Your task to perform on an android device: turn on location history Image 0: 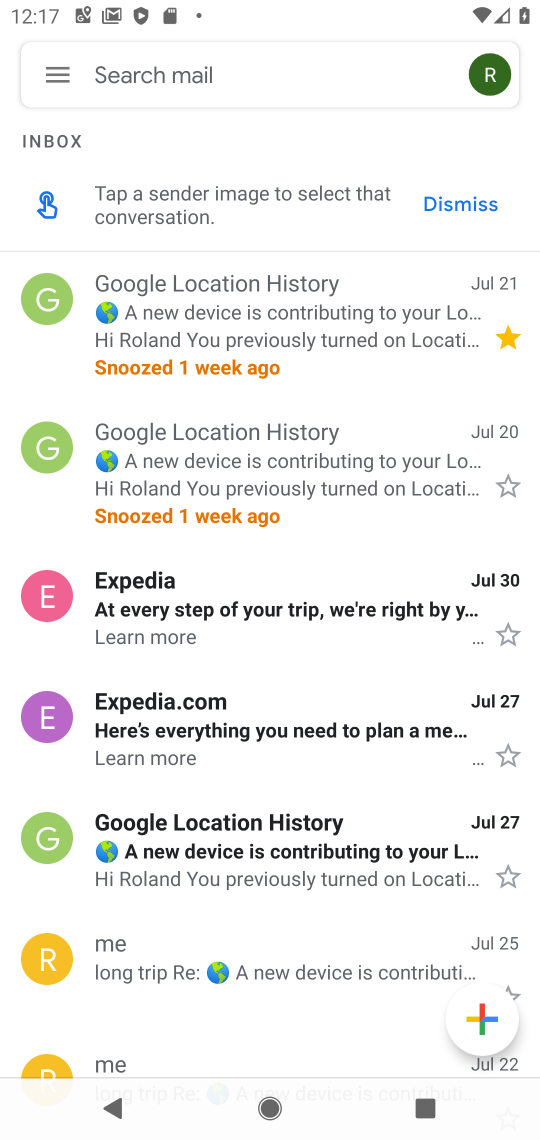
Step 0: press home button
Your task to perform on an android device: turn on location history Image 1: 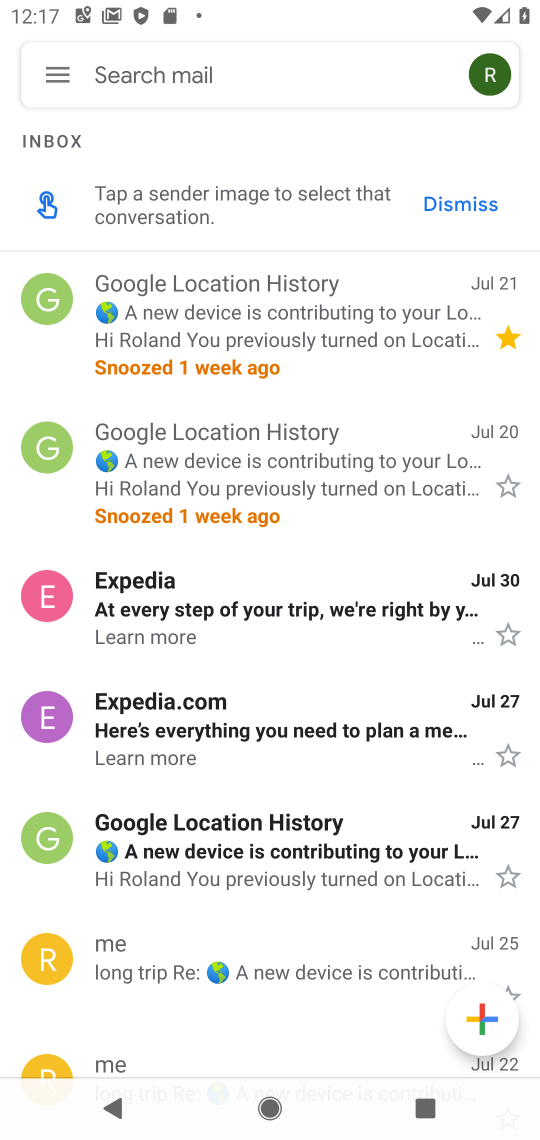
Step 1: press home button
Your task to perform on an android device: turn on location history Image 2: 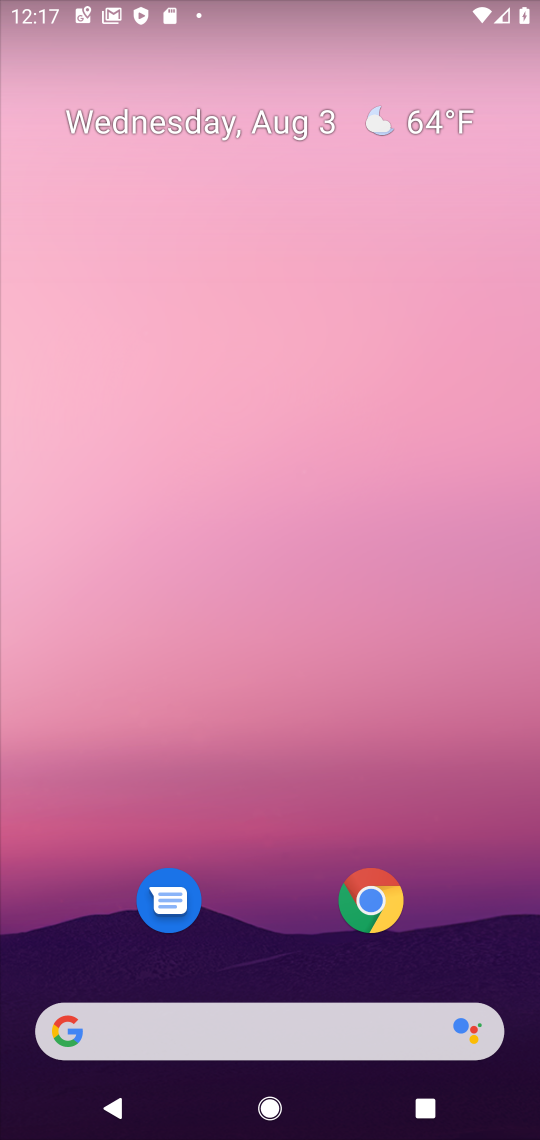
Step 2: drag from (272, 928) to (208, 51)
Your task to perform on an android device: turn on location history Image 3: 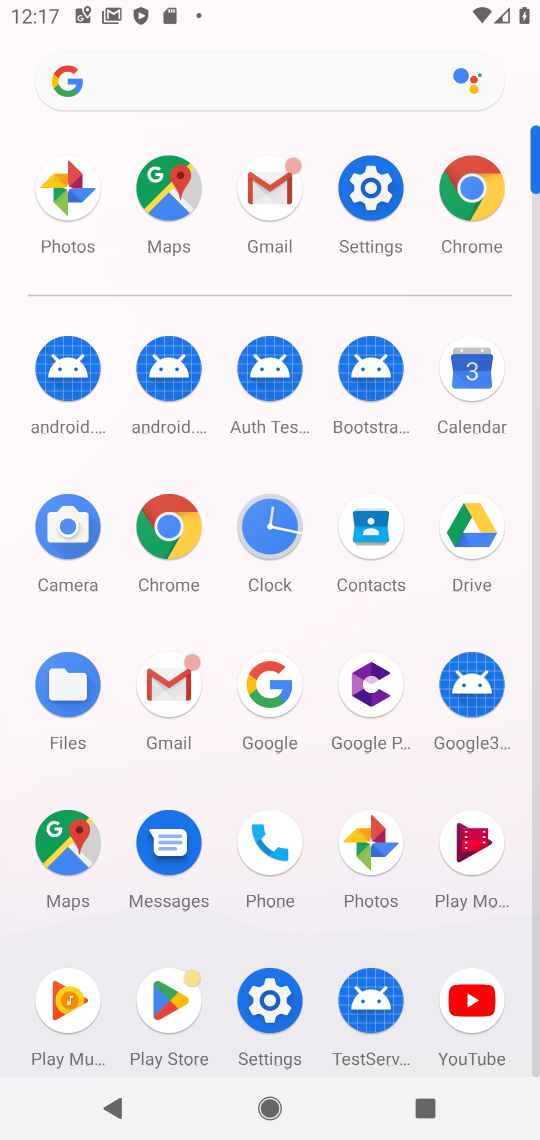
Step 3: click (360, 177)
Your task to perform on an android device: turn on location history Image 4: 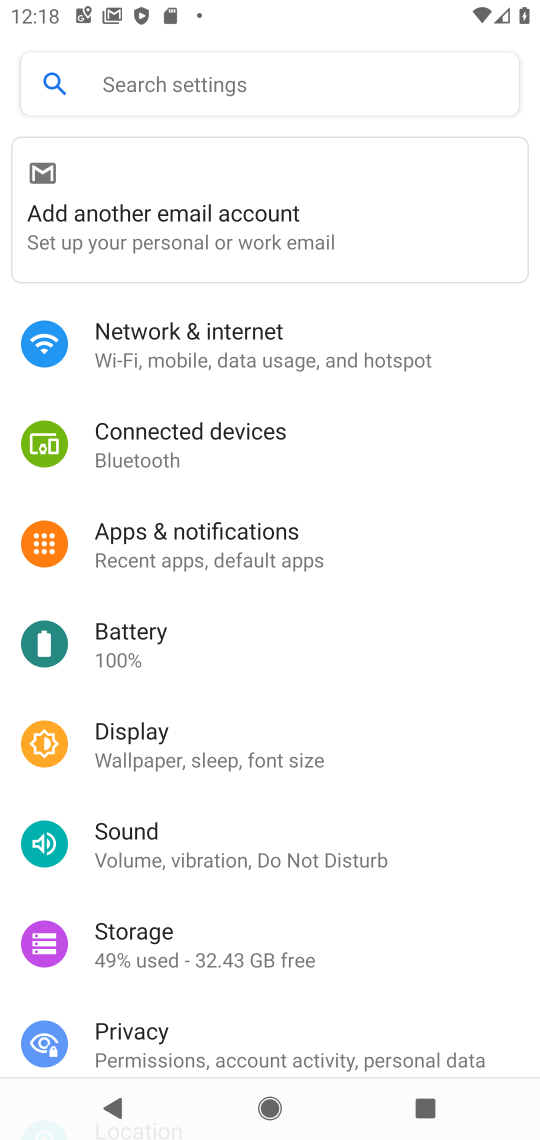
Step 4: drag from (275, 1006) to (281, 318)
Your task to perform on an android device: turn on location history Image 5: 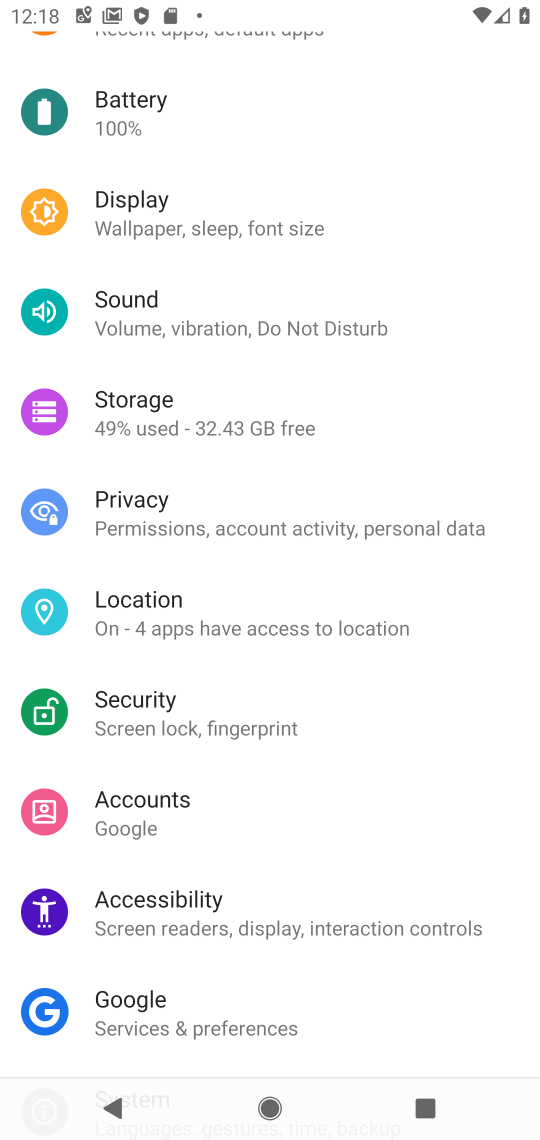
Step 5: click (169, 623)
Your task to perform on an android device: turn on location history Image 6: 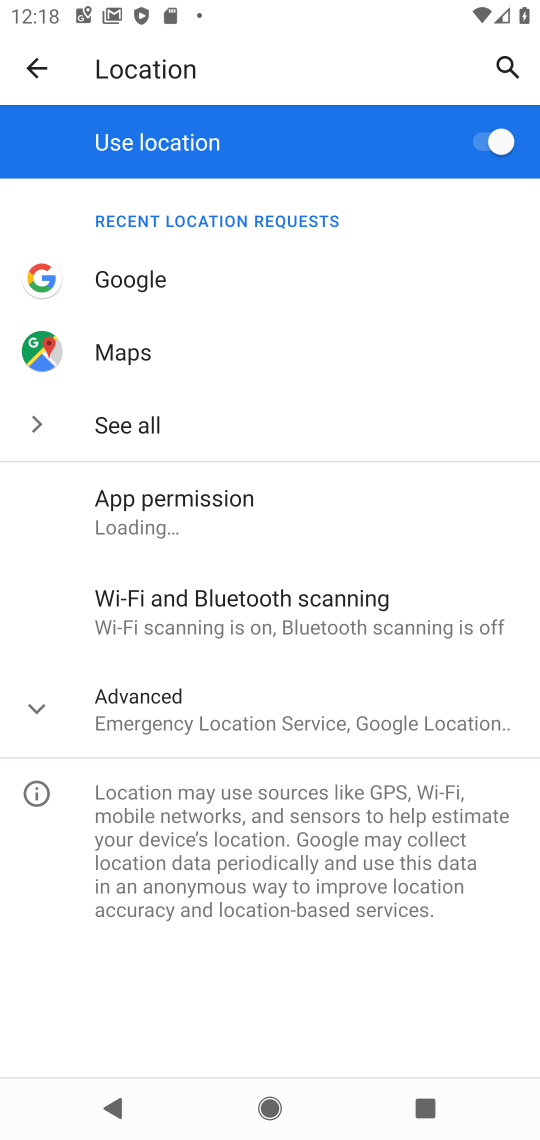
Step 6: click (171, 710)
Your task to perform on an android device: turn on location history Image 7: 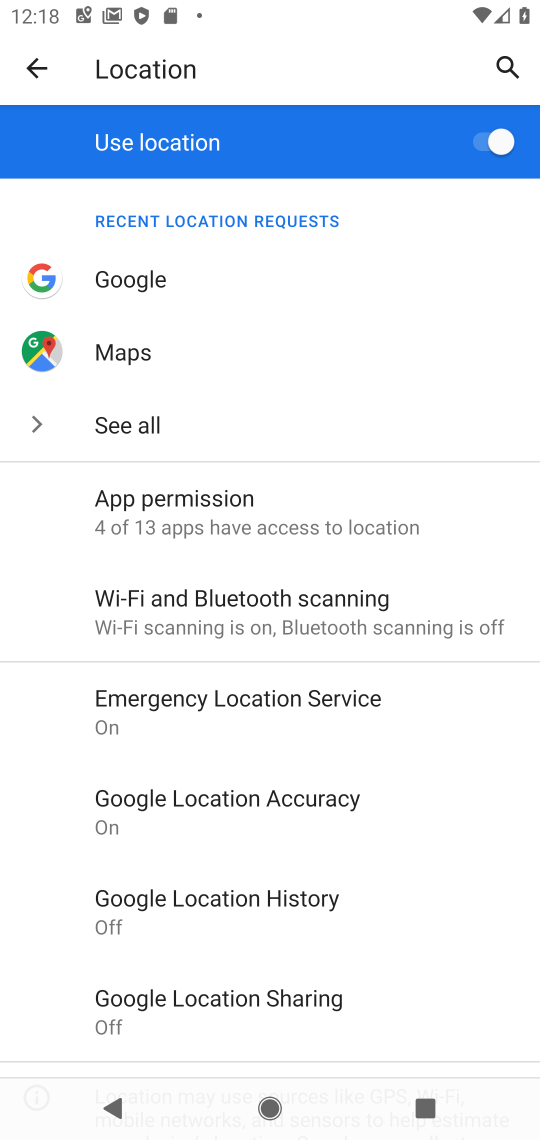
Step 7: click (294, 911)
Your task to perform on an android device: turn on location history Image 8: 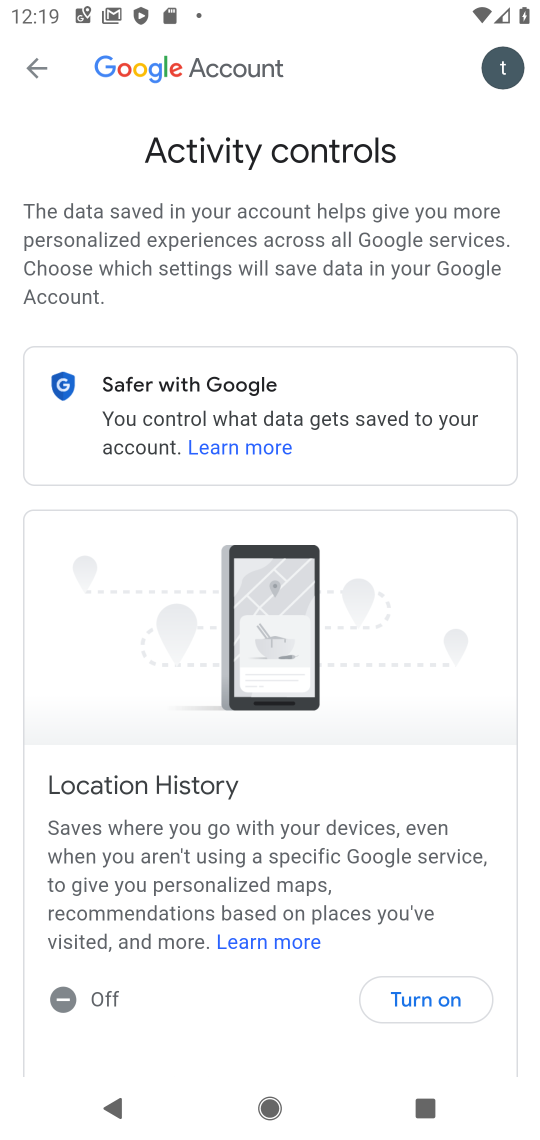
Step 8: click (435, 1006)
Your task to perform on an android device: turn on location history Image 9: 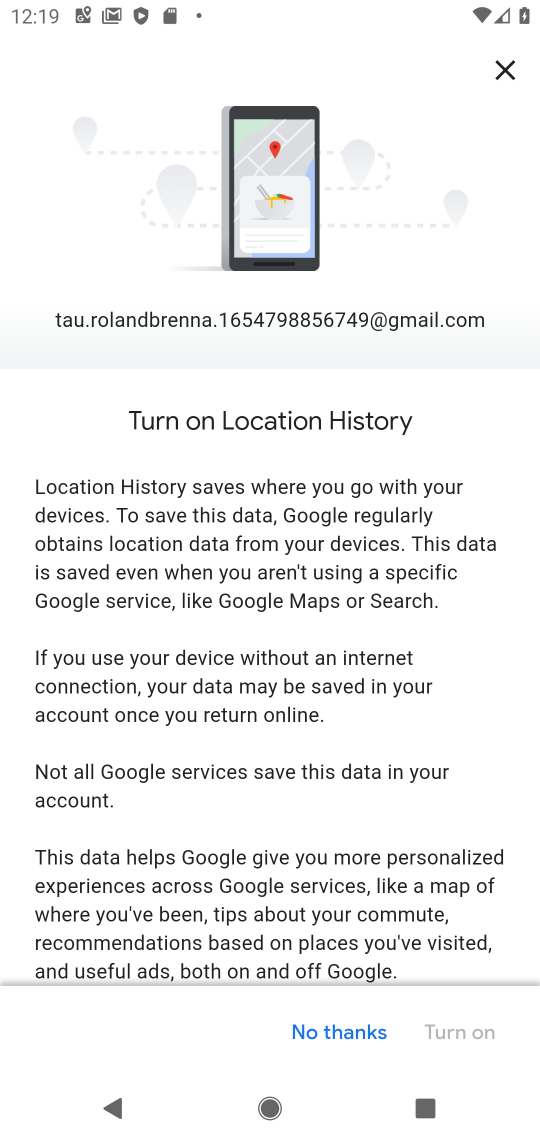
Step 9: drag from (445, 832) to (387, 229)
Your task to perform on an android device: turn on location history Image 10: 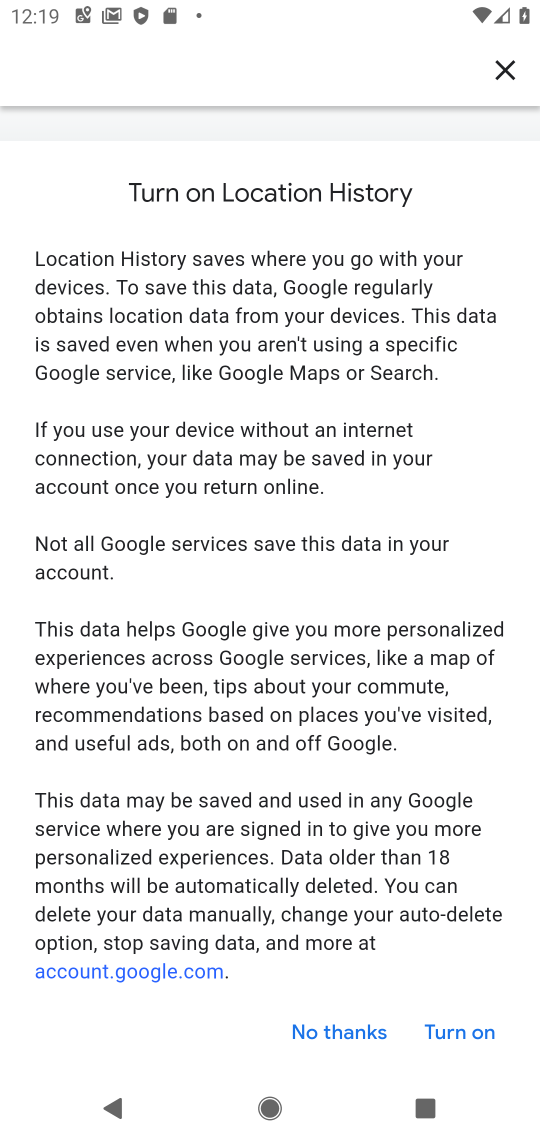
Step 10: drag from (365, 921) to (380, 269)
Your task to perform on an android device: turn on location history Image 11: 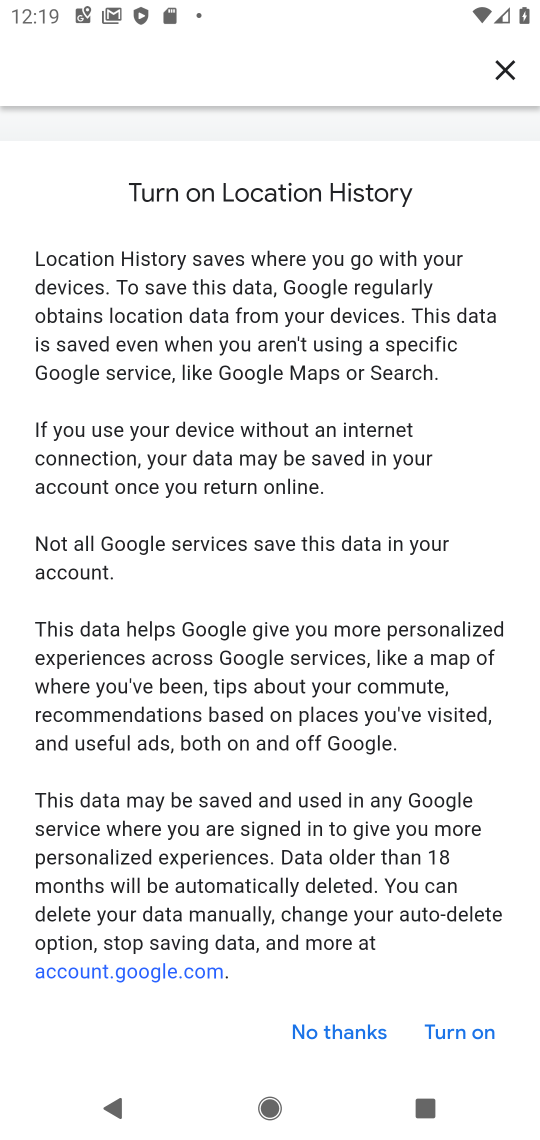
Step 11: drag from (269, 839) to (326, 203)
Your task to perform on an android device: turn on location history Image 12: 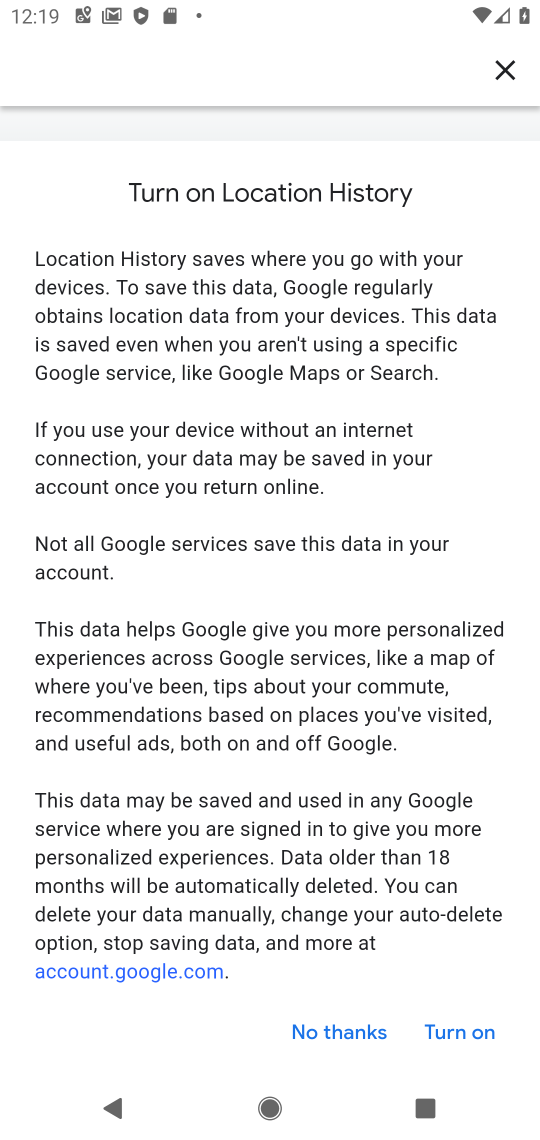
Step 12: click (328, 778)
Your task to perform on an android device: turn on location history Image 13: 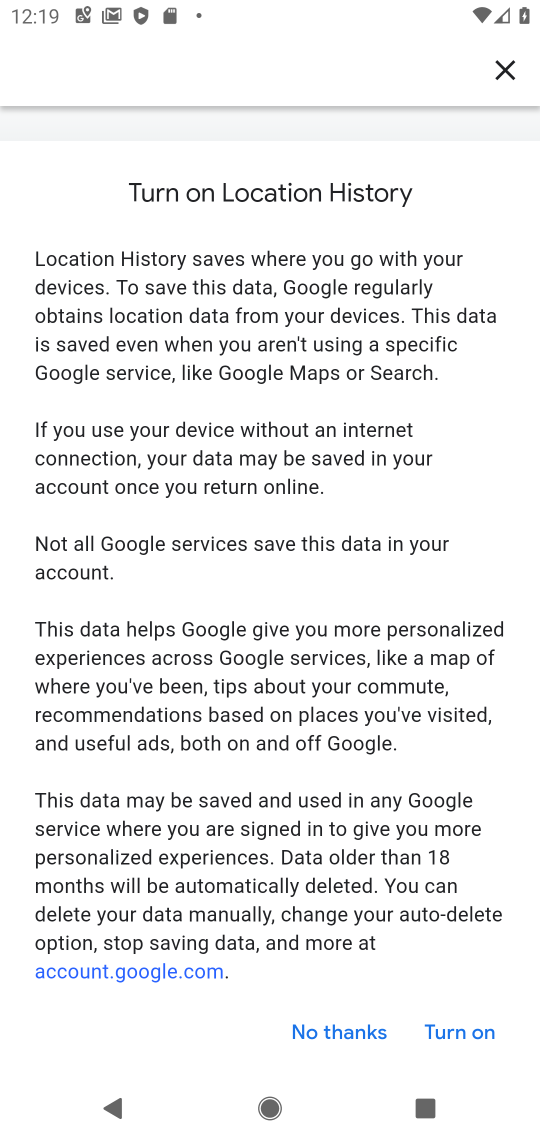
Step 13: drag from (311, 895) to (279, 110)
Your task to perform on an android device: turn on location history Image 14: 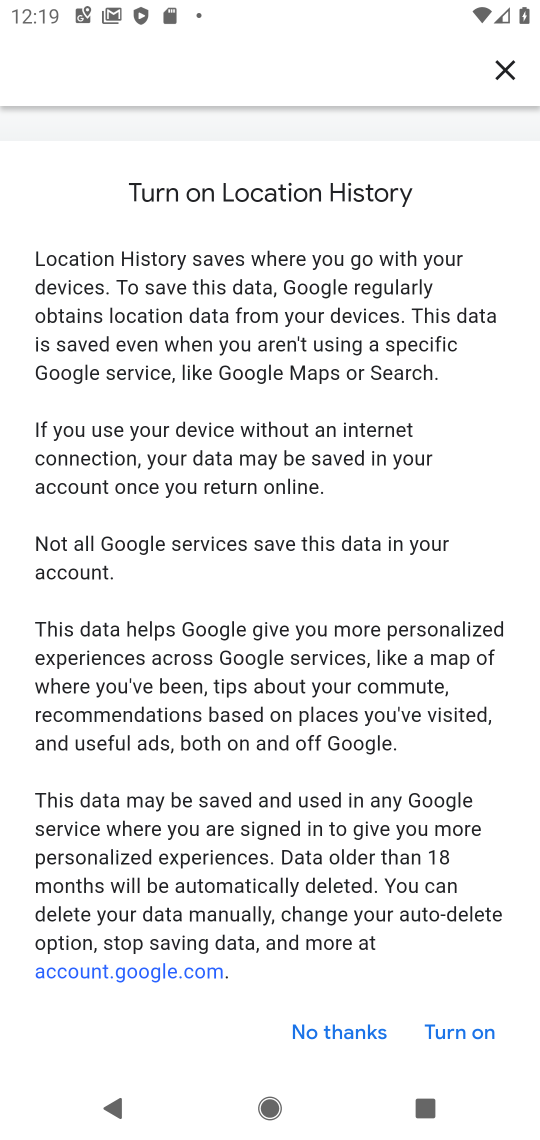
Step 14: drag from (208, 688) to (226, 260)
Your task to perform on an android device: turn on location history Image 15: 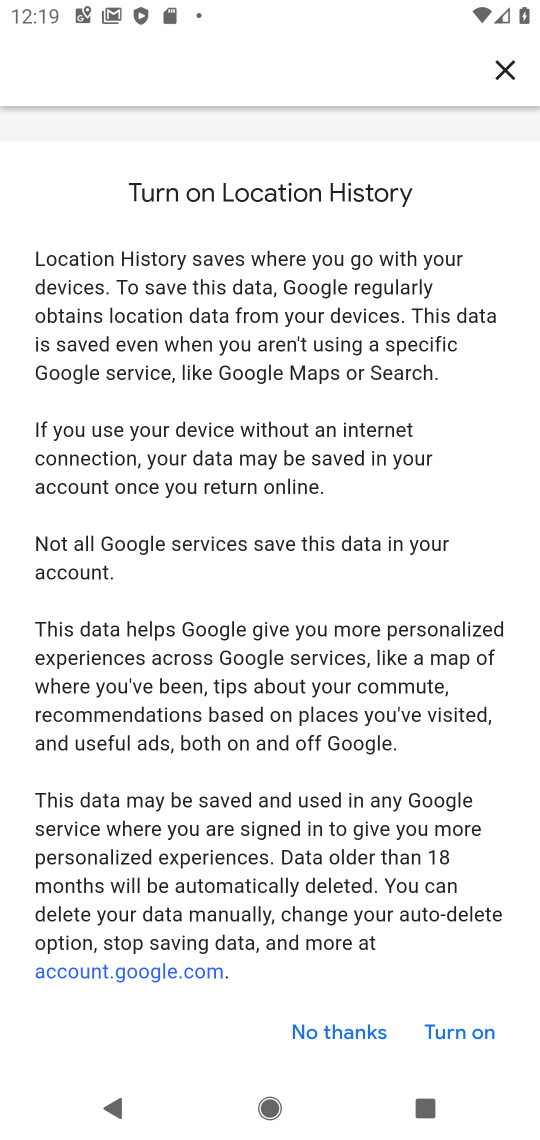
Step 15: click (464, 1064)
Your task to perform on an android device: turn on location history Image 16: 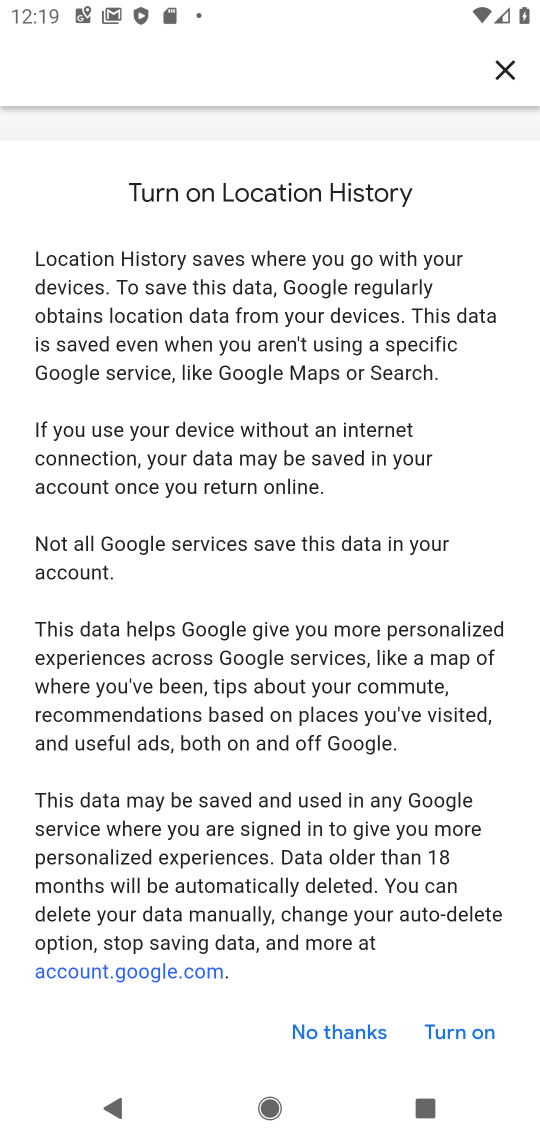
Step 16: click (462, 1035)
Your task to perform on an android device: turn on location history Image 17: 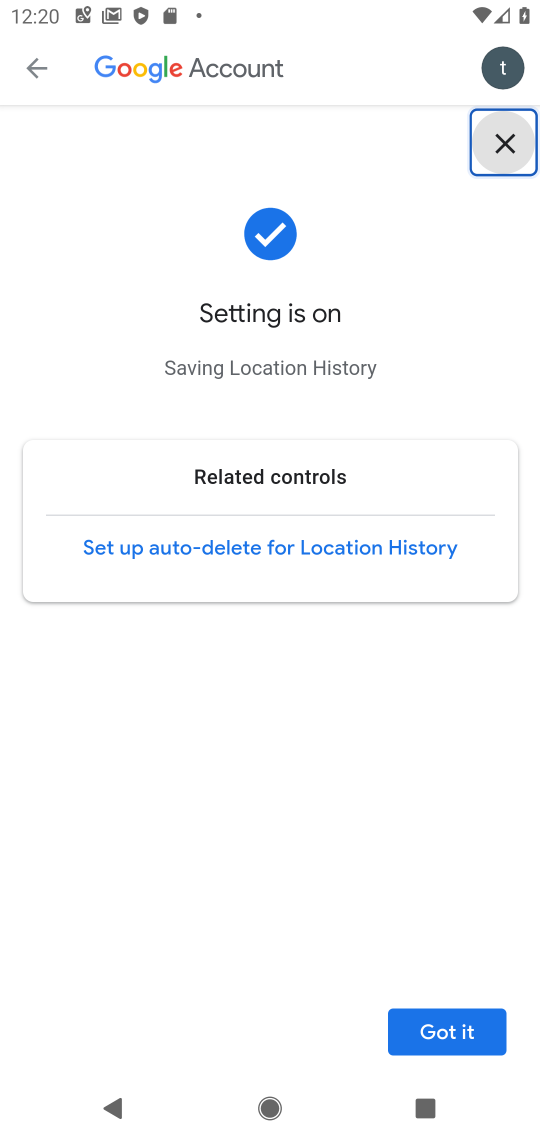
Step 17: task complete